Your task to perform on an android device: change alarm snooze length Image 0: 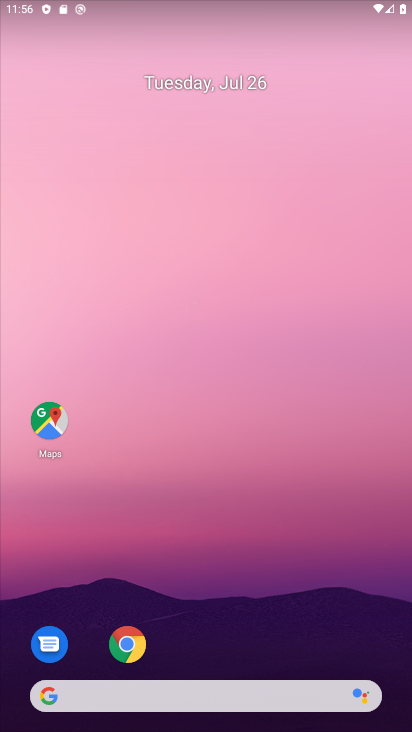
Step 0: drag from (244, 621) to (322, 109)
Your task to perform on an android device: change alarm snooze length Image 1: 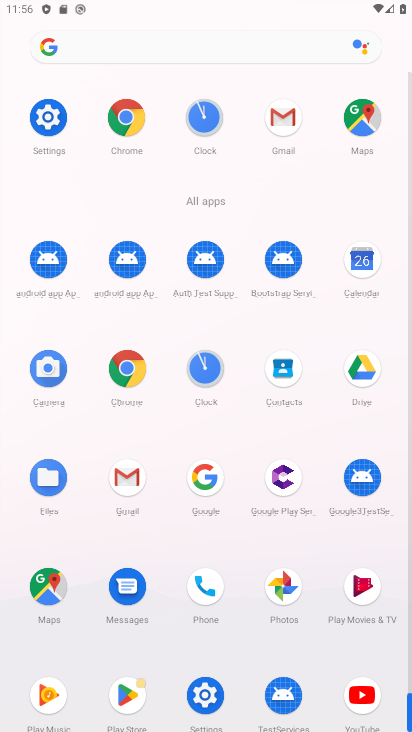
Step 1: click (197, 128)
Your task to perform on an android device: change alarm snooze length Image 2: 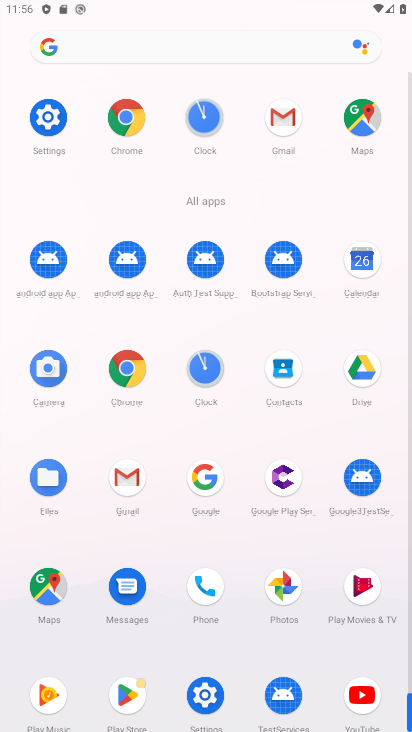
Step 2: click (198, 128)
Your task to perform on an android device: change alarm snooze length Image 3: 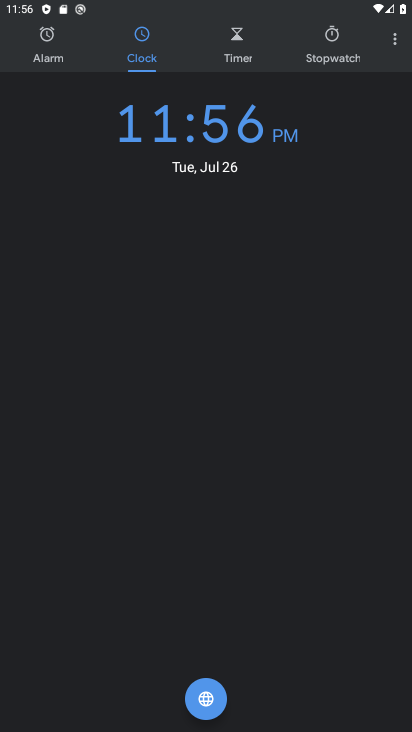
Step 3: click (388, 40)
Your task to perform on an android device: change alarm snooze length Image 4: 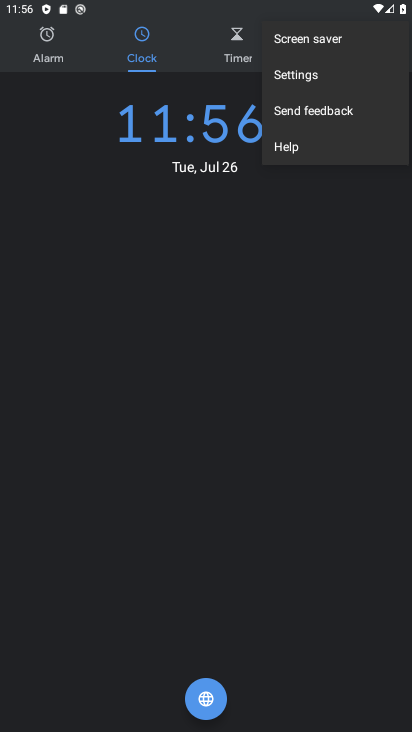
Step 4: click (309, 77)
Your task to perform on an android device: change alarm snooze length Image 5: 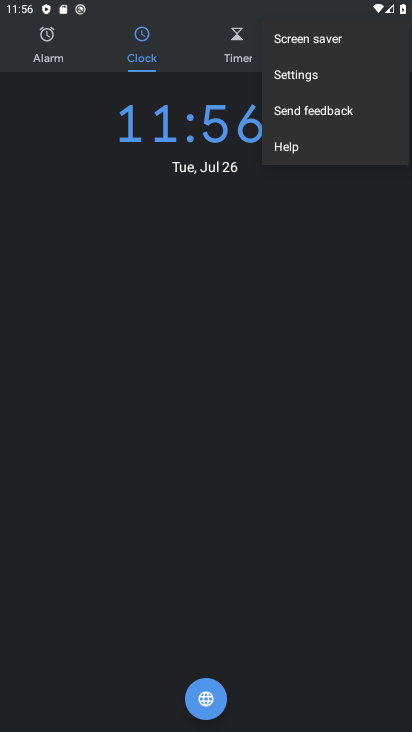
Step 5: click (311, 72)
Your task to perform on an android device: change alarm snooze length Image 6: 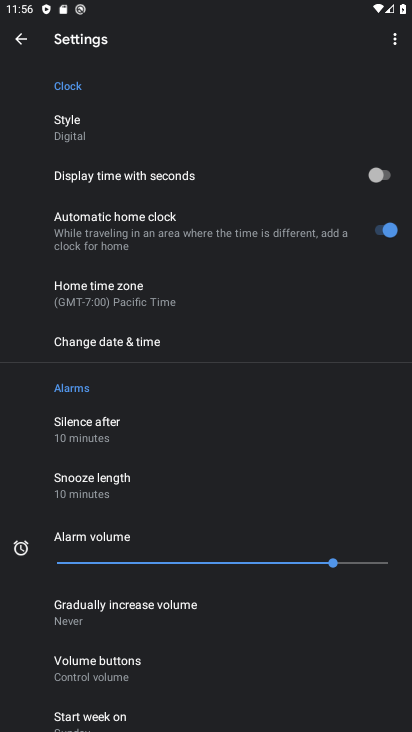
Step 6: click (99, 478)
Your task to perform on an android device: change alarm snooze length Image 7: 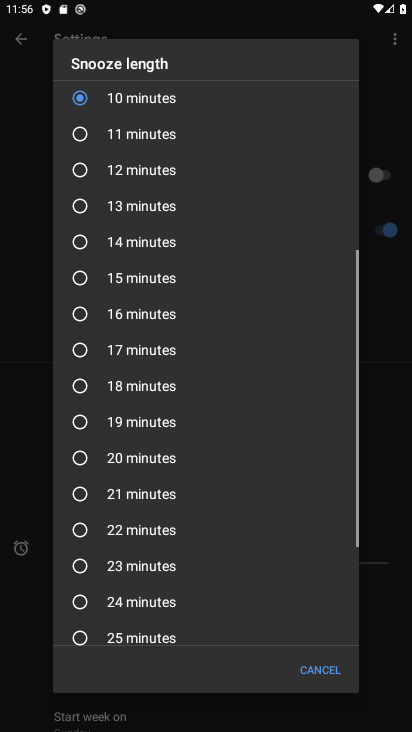
Step 7: click (97, 484)
Your task to perform on an android device: change alarm snooze length Image 8: 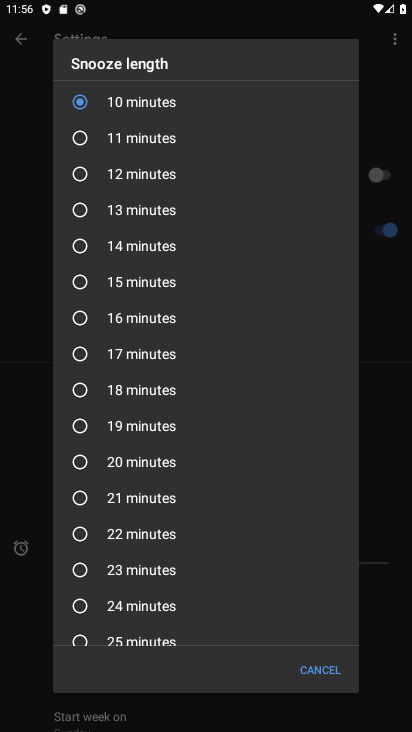
Step 8: click (77, 385)
Your task to perform on an android device: change alarm snooze length Image 9: 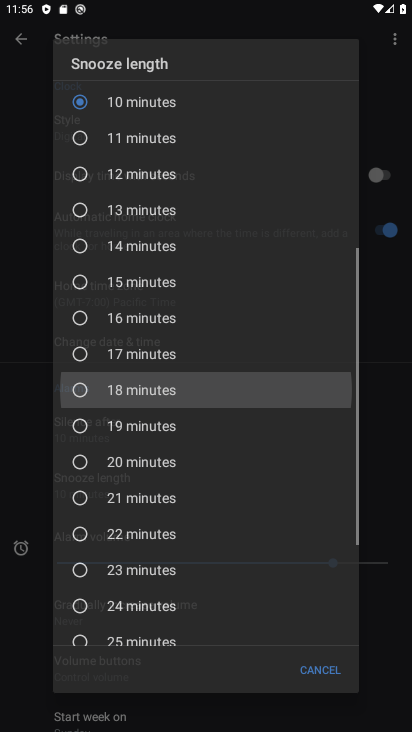
Step 9: click (94, 379)
Your task to perform on an android device: change alarm snooze length Image 10: 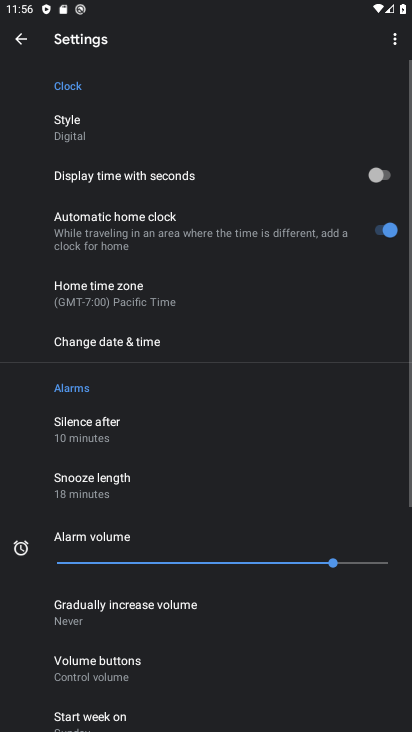
Step 10: task complete